Your task to perform on an android device: turn off location history Image 0: 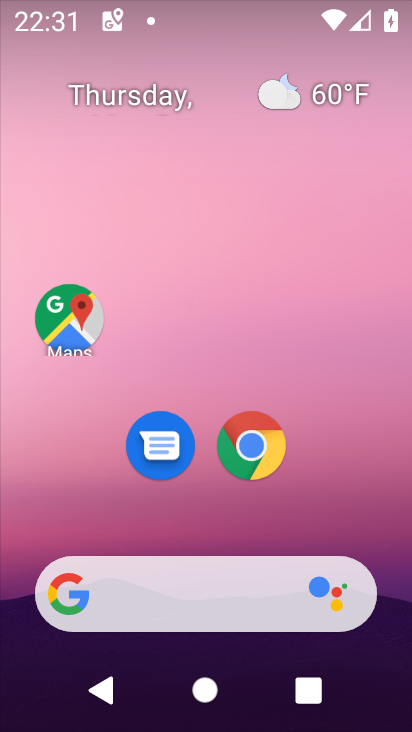
Step 0: drag from (225, 565) to (239, 75)
Your task to perform on an android device: turn off location history Image 1: 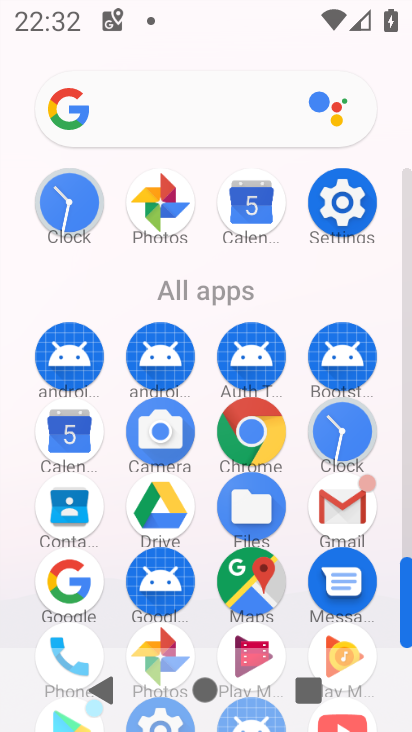
Step 1: click (367, 198)
Your task to perform on an android device: turn off location history Image 2: 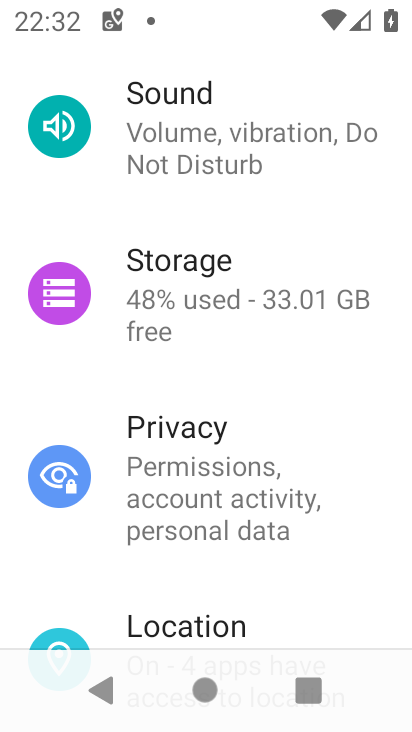
Step 2: click (165, 624)
Your task to perform on an android device: turn off location history Image 3: 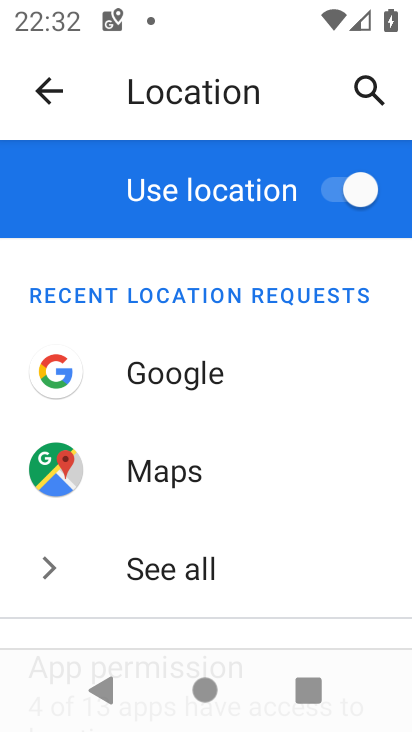
Step 3: drag from (135, 562) to (194, 101)
Your task to perform on an android device: turn off location history Image 4: 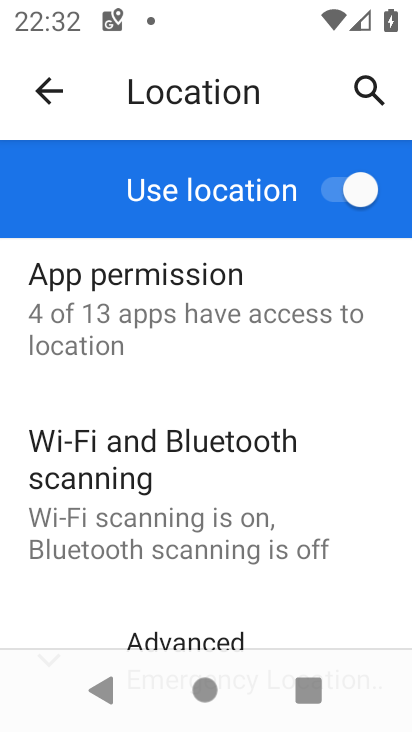
Step 4: drag from (237, 581) to (265, 80)
Your task to perform on an android device: turn off location history Image 5: 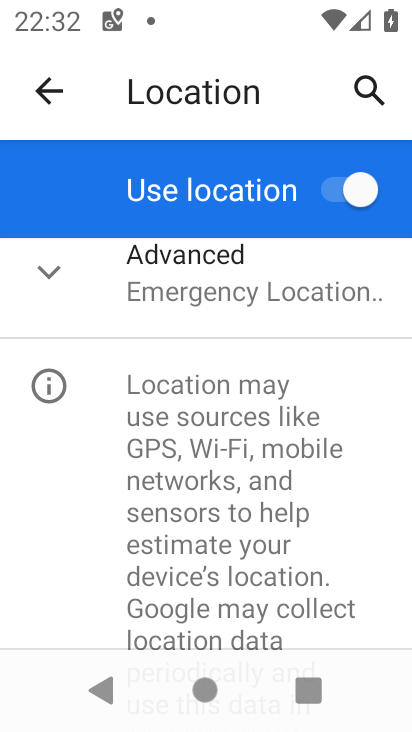
Step 5: click (183, 309)
Your task to perform on an android device: turn off location history Image 6: 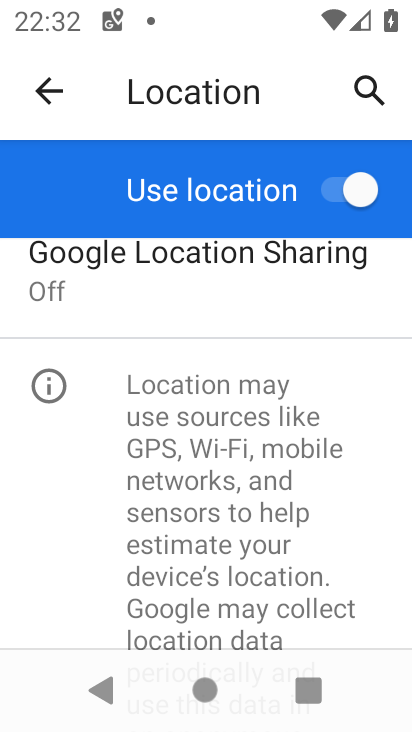
Step 6: drag from (202, 290) to (187, 726)
Your task to perform on an android device: turn off location history Image 7: 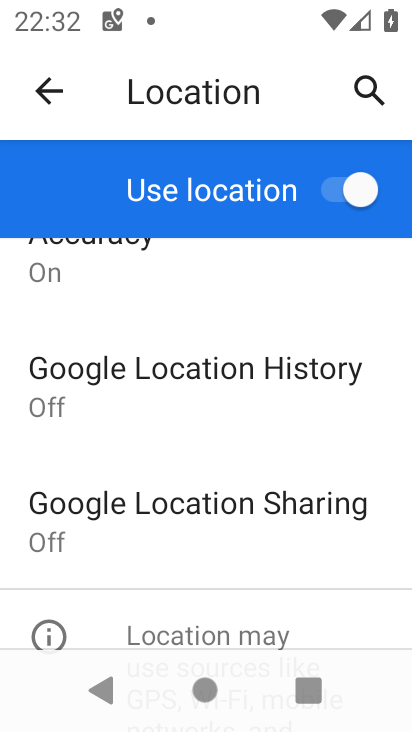
Step 7: click (188, 394)
Your task to perform on an android device: turn off location history Image 8: 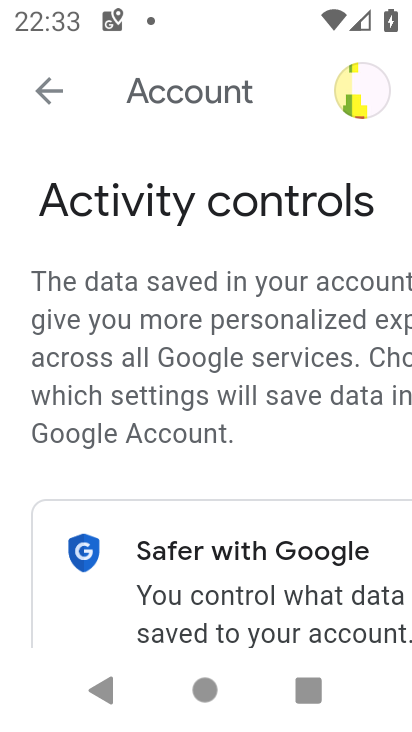
Step 8: task complete